Your task to perform on an android device: Open calendar and show me the fourth week of next month Image 0: 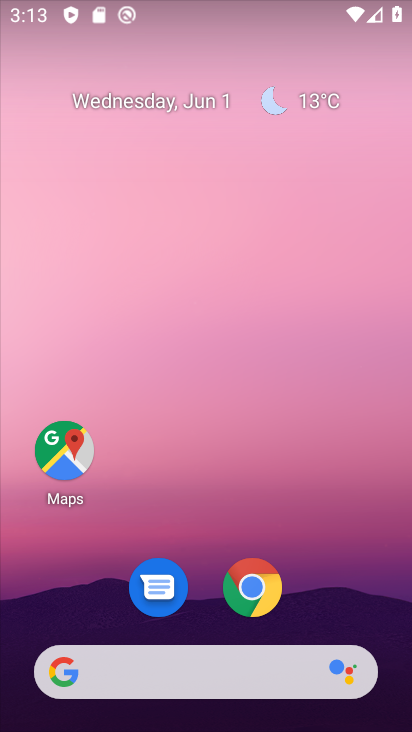
Step 0: drag from (322, 560) to (221, 5)
Your task to perform on an android device: Open calendar and show me the fourth week of next month Image 1: 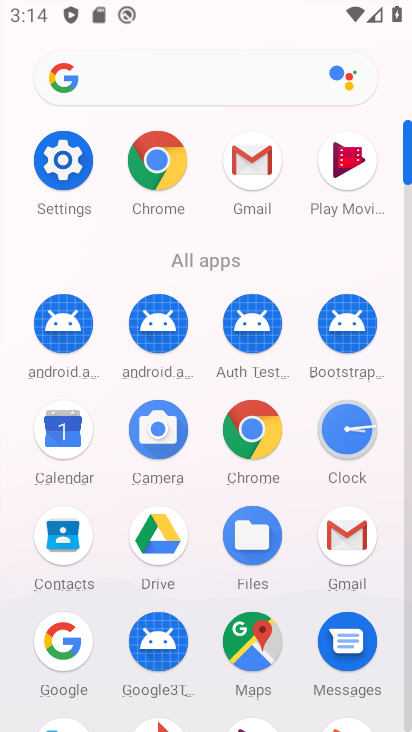
Step 1: click (61, 432)
Your task to perform on an android device: Open calendar and show me the fourth week of next month Image 2: 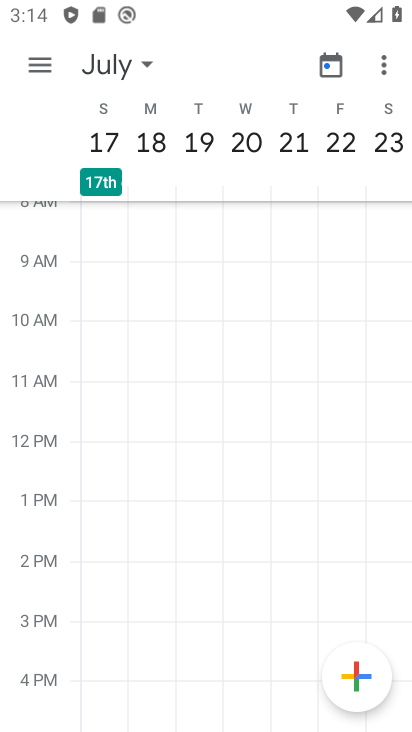
Step 2: click (113, 60)
Your task to perform on an android device: Open calendar and show me the fourth week of next month Image 3: 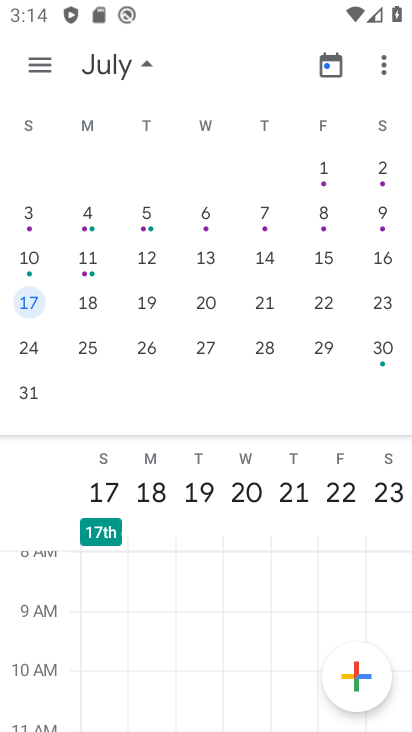
Step 3: drag from (331, 268) to (14, 216)
Your task to perform on an android device: Open calendar and show me the fourth week of next month Image 4: 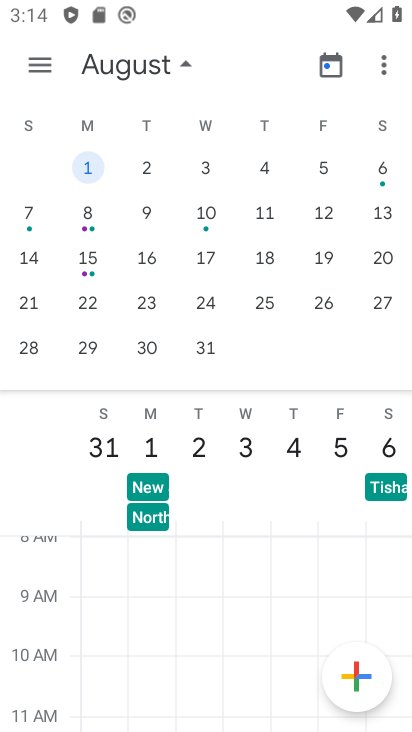
Step 4: click (38, 62)
Your task to perform on an android device: Open calendar and show me the fourth week of next month Image 5: 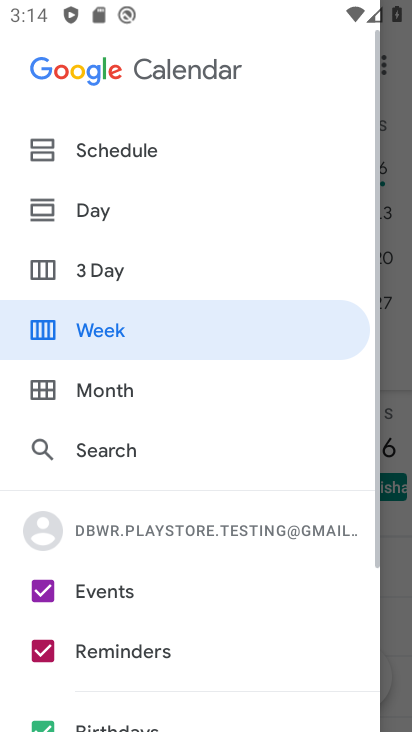
Step 5: click (95, 319)
Your task to perform on an android device: Open calendar and show me the fourth week of next month Image 6: 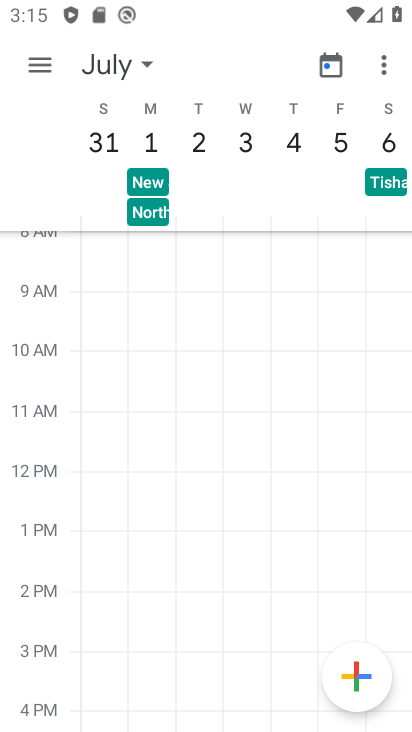
Step 6: task complete